Your task to perform on an android device: Open wifi settings Image 0: 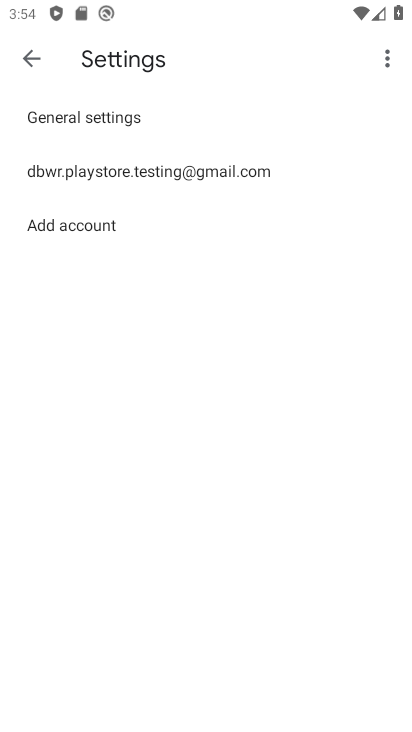
Step 0: press home button
Your task to perform on an android device: Open wifi settings Image 1: 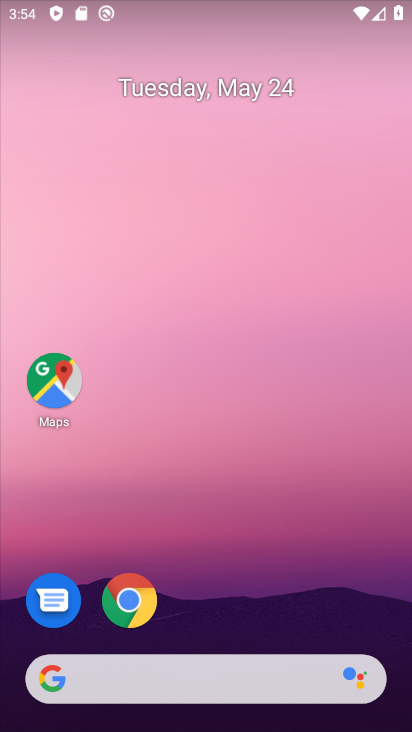
Step 1: drag from (256, 662) to (254, 80)
Your task to perform on an android device: Open wifi settings Image 2: 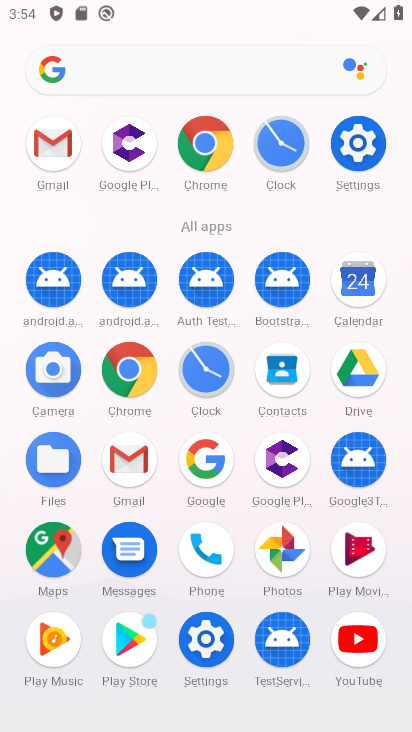
Step 2: click (344, 144)
Your task to perform on an android device: Open wifi settings Image 3: 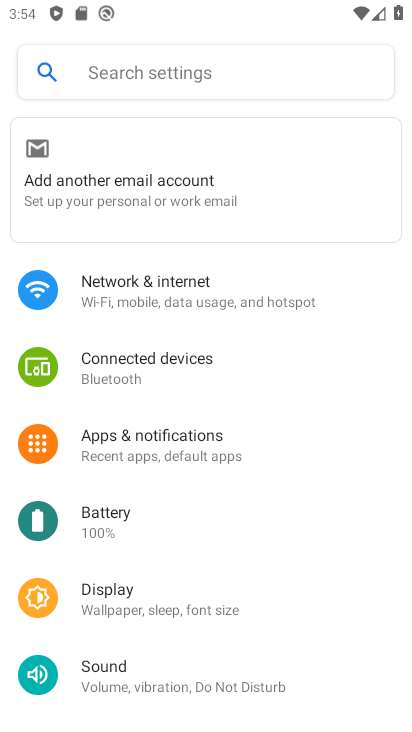
Step 3: click (135, 294)
Your task to perform on an android device: Open wifi settings Image 4: 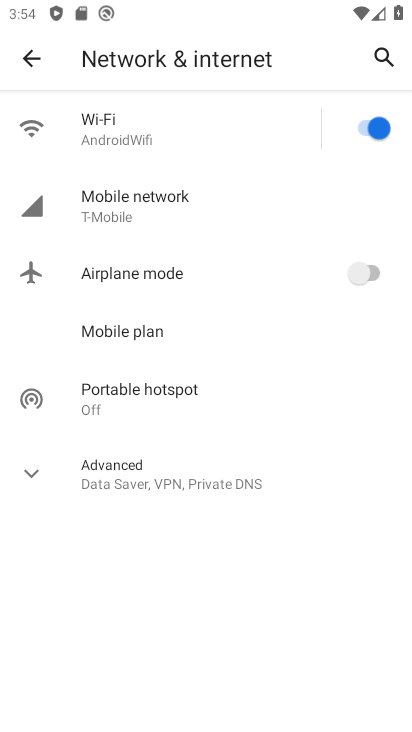
Step 4: click (113, 131)
Your task to perform on an android device: Open wifi settings Image 5: 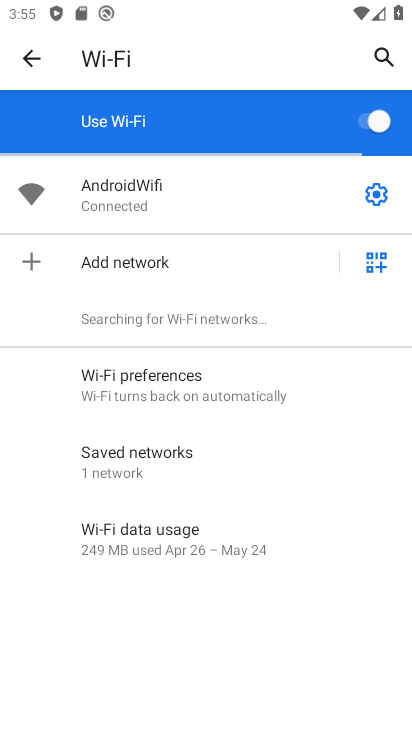
Step 5: task complete